Your task to perform on an android device: Go to wifi settings Image 0: 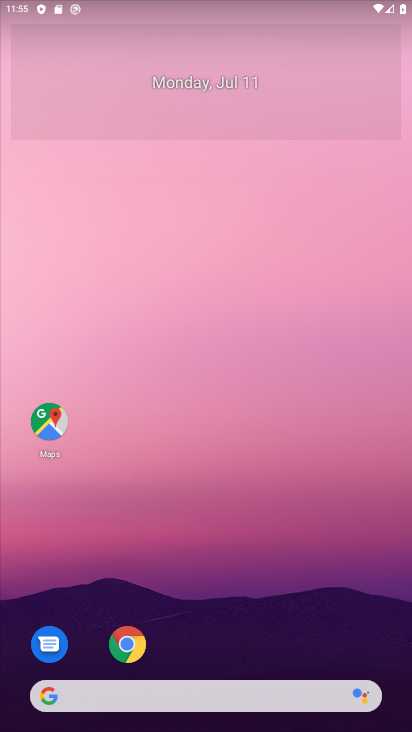
Step 0: drag from (29, 697) to (252, 88)
Your task to perform on an android device: Go to wifi settings Image 1: 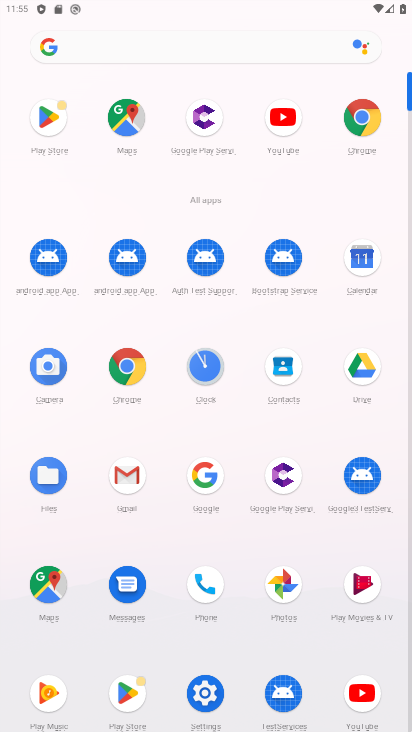
Step 1: click (201, 703)
Your task to perform on an android device: Go to wifi settings Image 2: 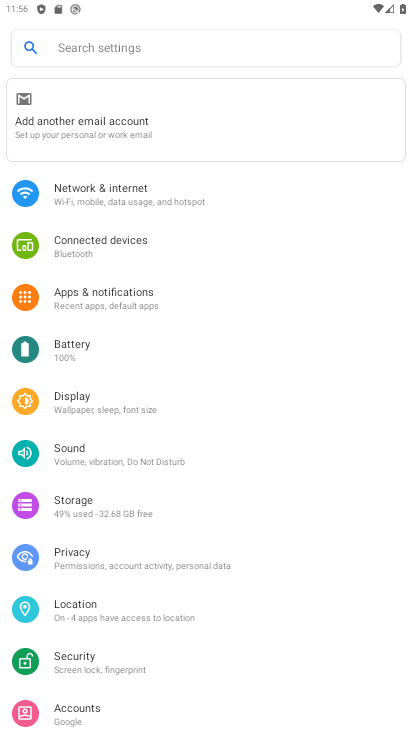
Step 2: click (127, 197)
Your task to perform on an android device: Go to wifi settings Image 3: 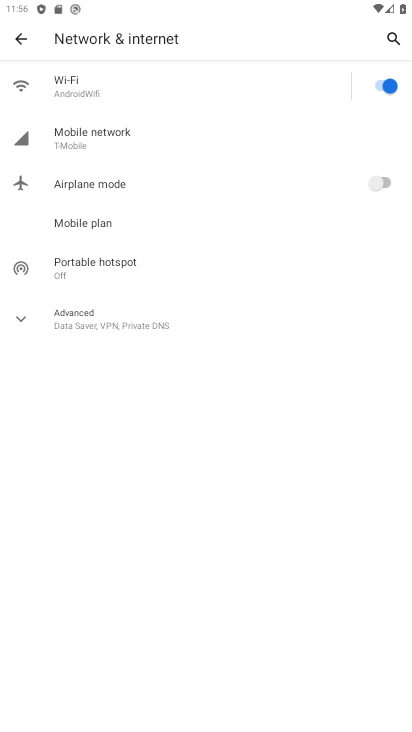
Step 3: task complete